Your task to perform on an android device: toggle pop-ups in chrome Image 0: 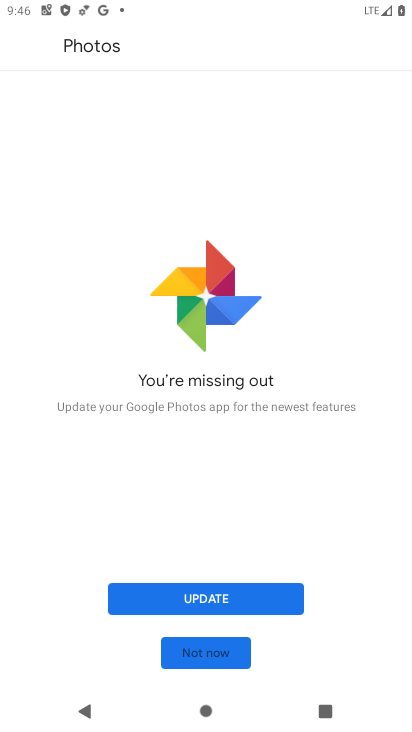
Step 0: press home button
Your task to perform on an android device: toggle pop-ups in chrome Image 1: 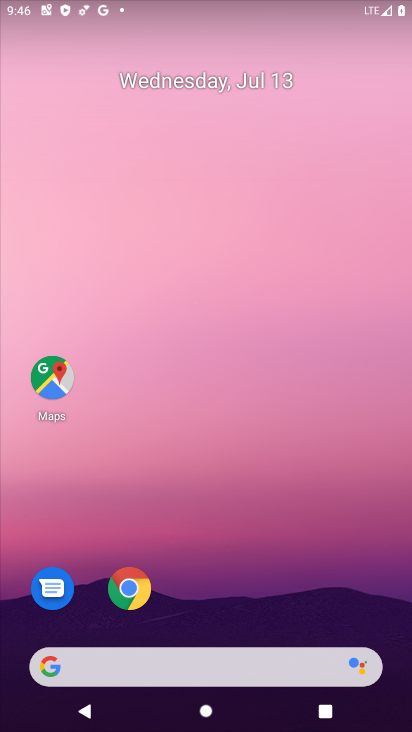
Step 1: click (132, 587)
Your task to perform on an android device: toggle pop-ups in chrome Image 2: 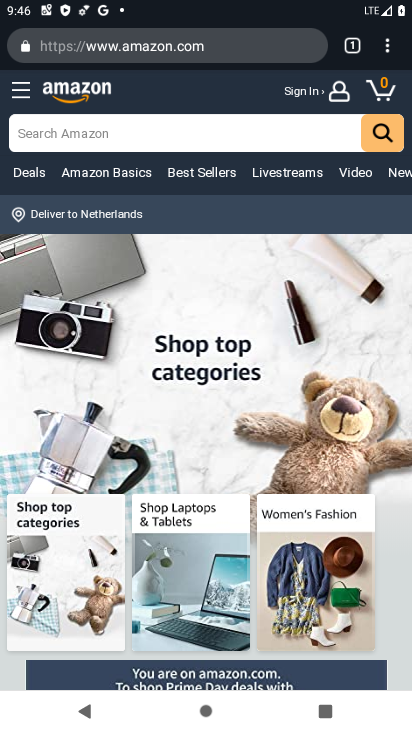
Step 2: click (384, 41)
Your task to perform on an android device: toggle pop-ups in chrome Image 3: 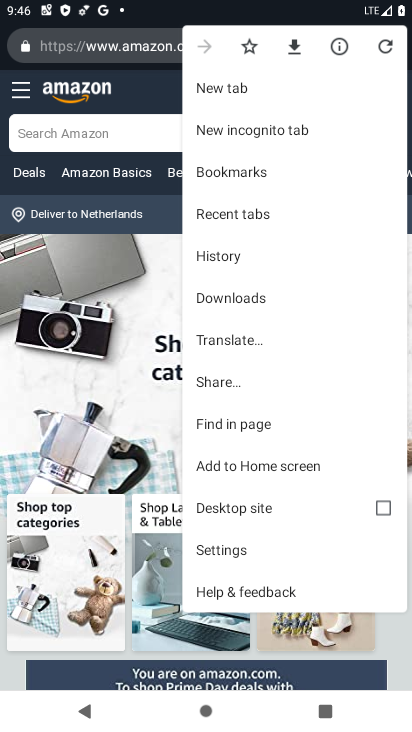
Step 3: click (241, 548)
Your task to perform on an android device: toggle pop-ups in chrome Image 4: 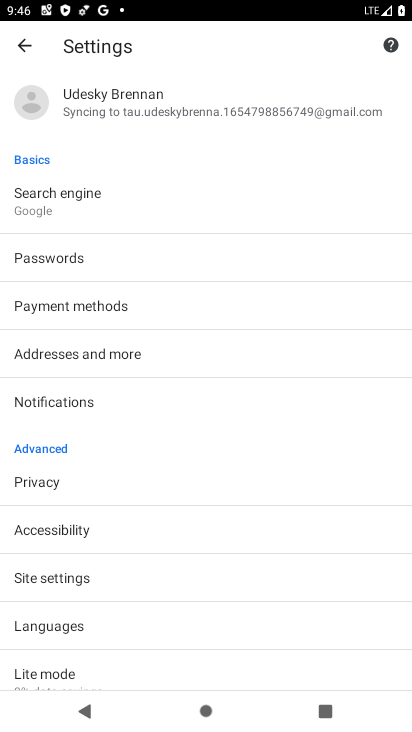
Step 4: click (64, 577)
Your task to perform on an android device: toggle pop-ups in chrome Image 5: 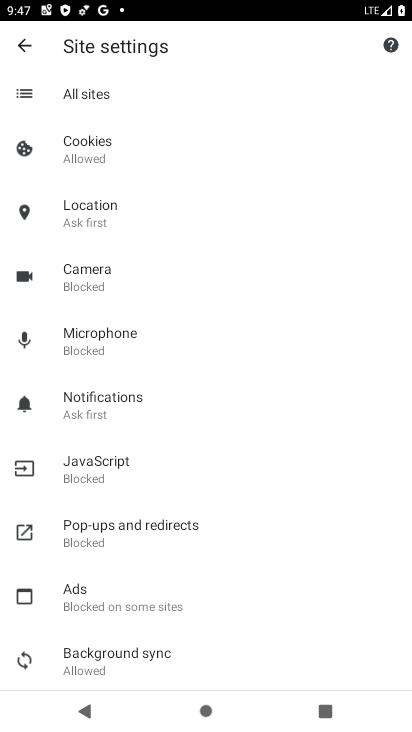
Step 5: click (120, 535)
Your task to perform on an android device: toggle pop-ups in chrome Image 6: 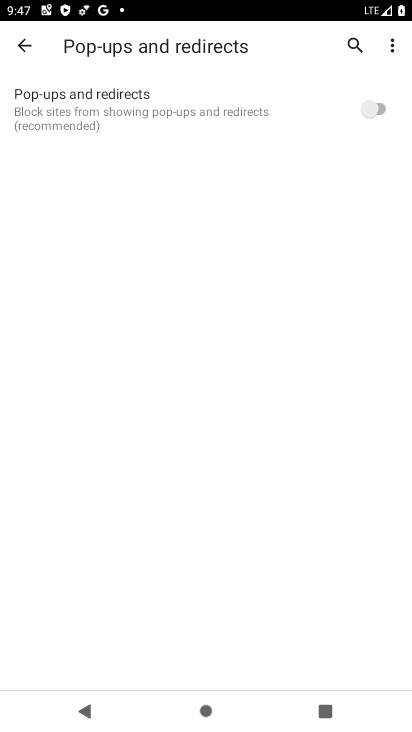
Step 6: click (372, 119)
Your task to perform on an android device: toggle pop-ups in chrome Image 7: 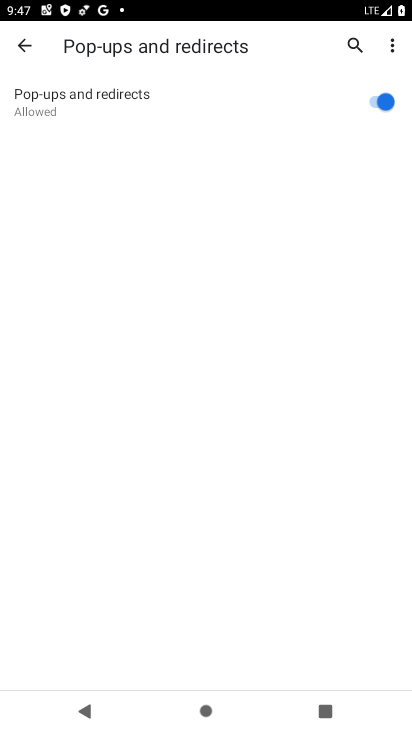
Step 7: task complete